Your task to perform on an android device: Do I have any events tomorrow? Image 0: 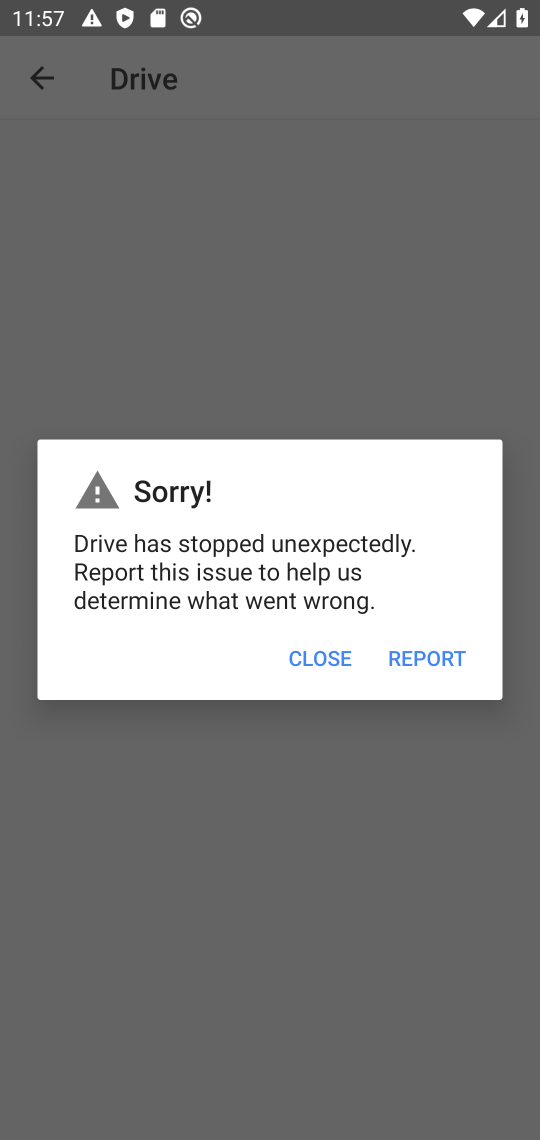
Step 0: press home button
Your task to perform on an android device: Do I have any events tomorrow? Image 1: 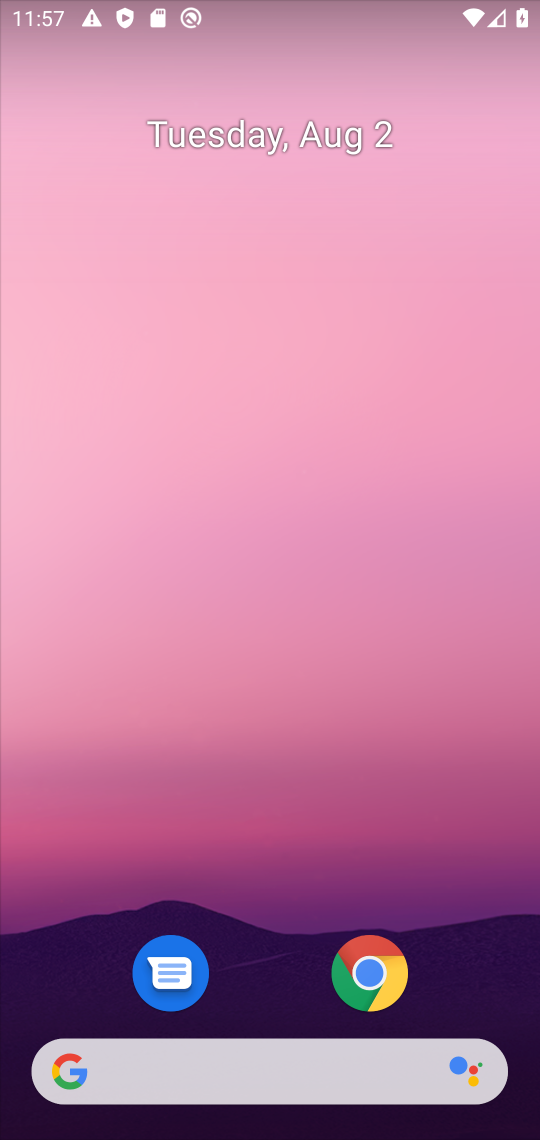
Step 1: drag from (255, 1050) to (175, 346)
Your task to perform on an android device: Do I have any events tomorrow? Image 2: 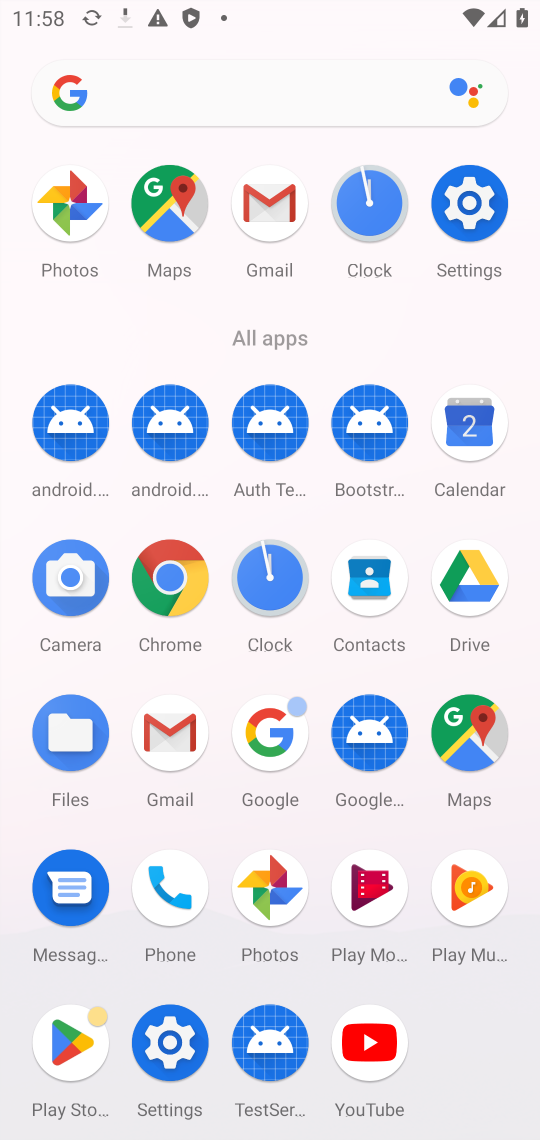
Step 2: click (452, 424)
Your task to perform on an android device: Do I have any events tomorrow? Image 3: 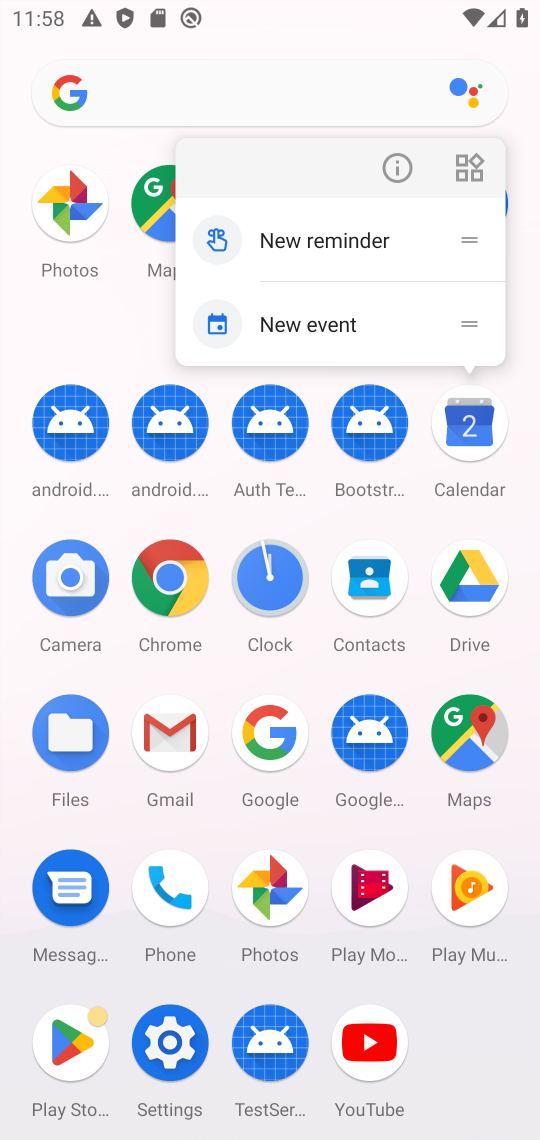
Step 3: click (465, 434)
Your task to perform on an android device: Do I have any events tomorrow? Image 4: 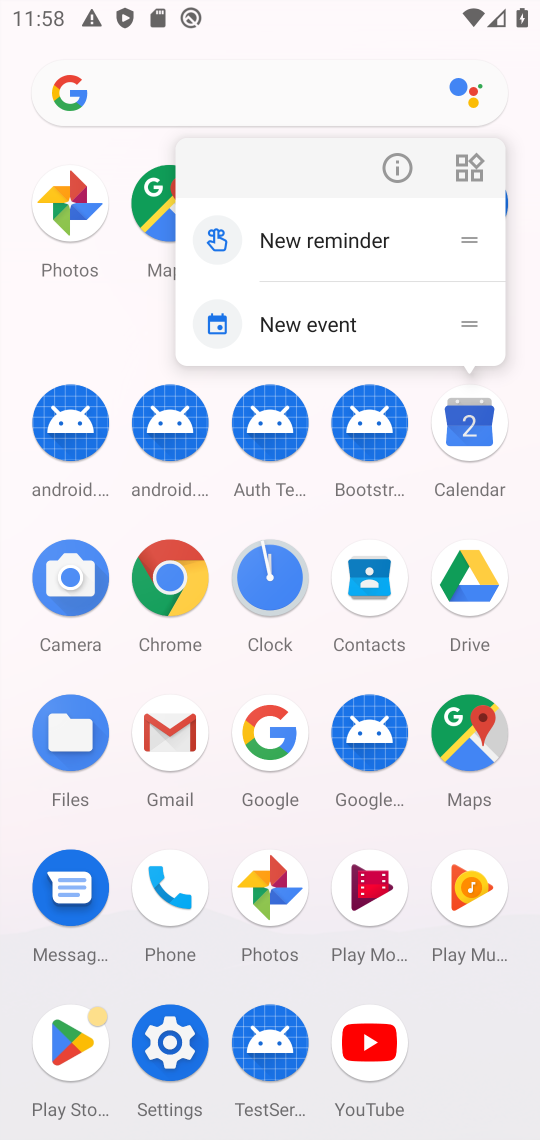
Step 4: click (465, 434)
Your task to perform on an android device: Do I have any events tomorrow? Image 5: 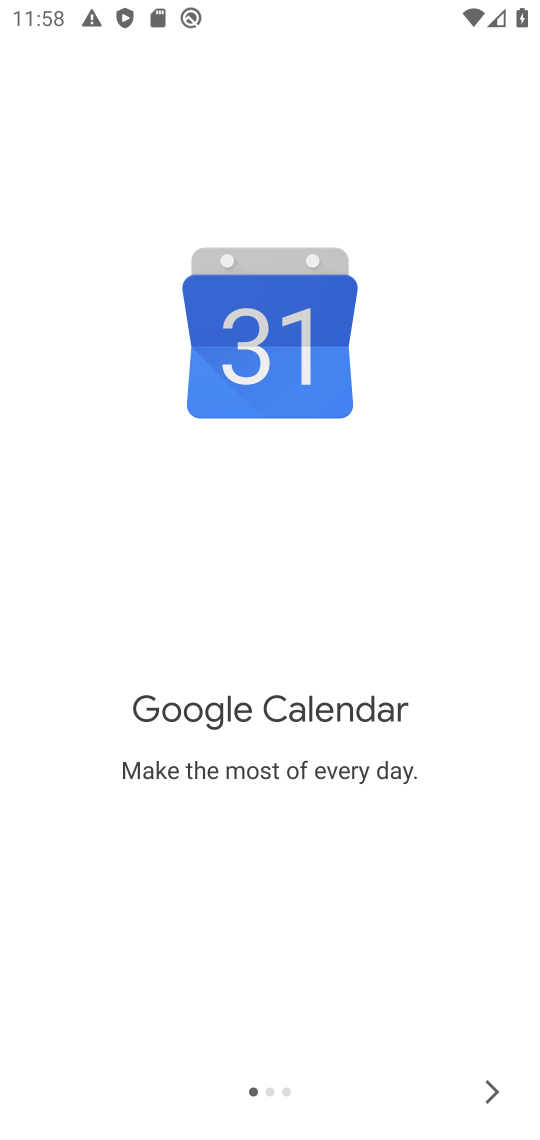
Step 5: click (501, 1093)
Your task to perform on an android device: Do I have any events tomorrow? Image 6: 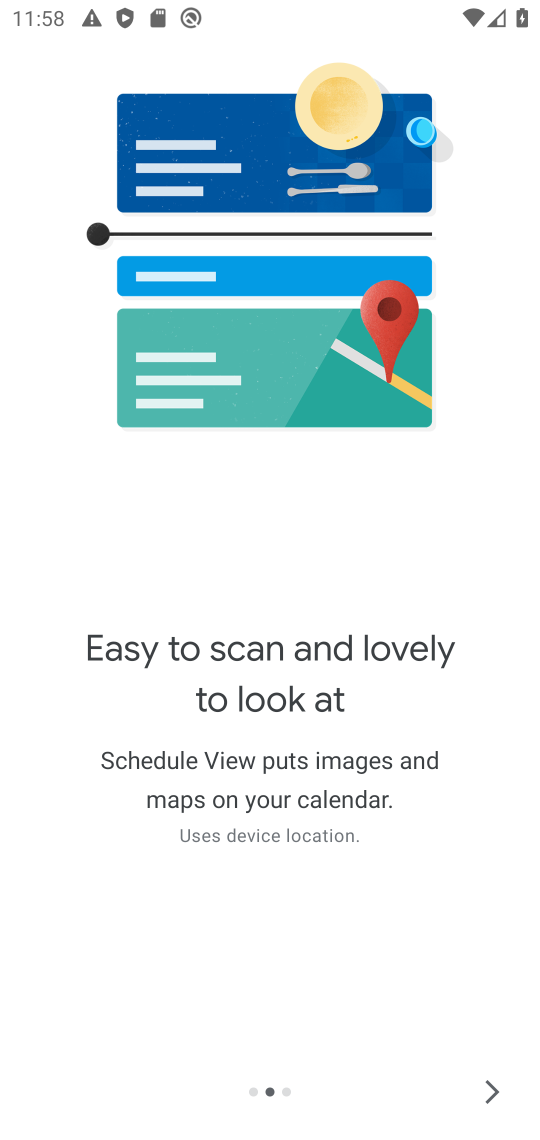
Step 6: click (485, 1087)
Your task to perform on an android device: Do I have any events tomorrow? Image 7: 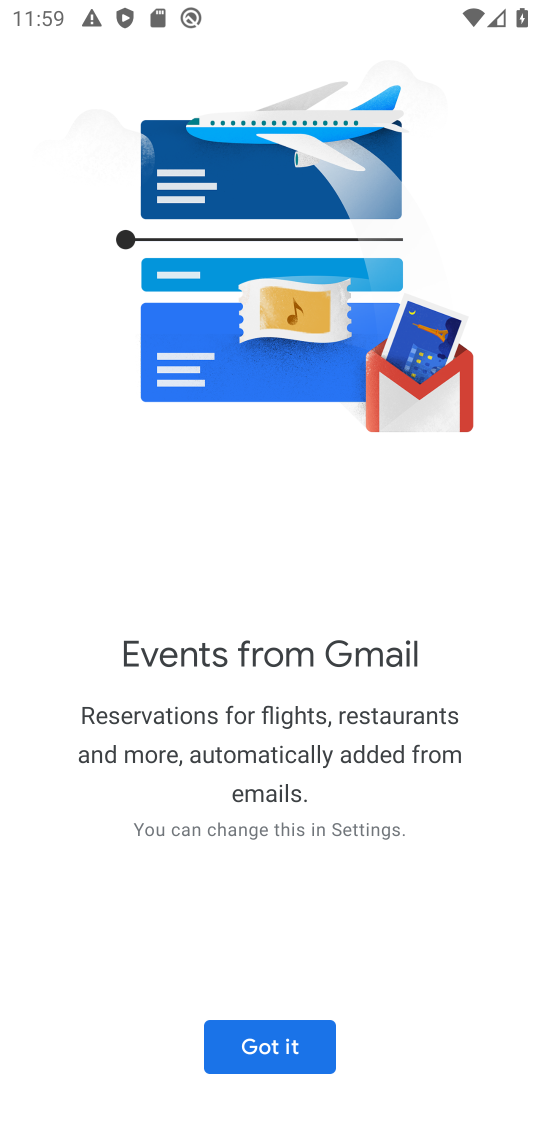
Step 7: click (294, 1067)
Your task to perform on an android device: Do I have any events tomorrow? Image 8: 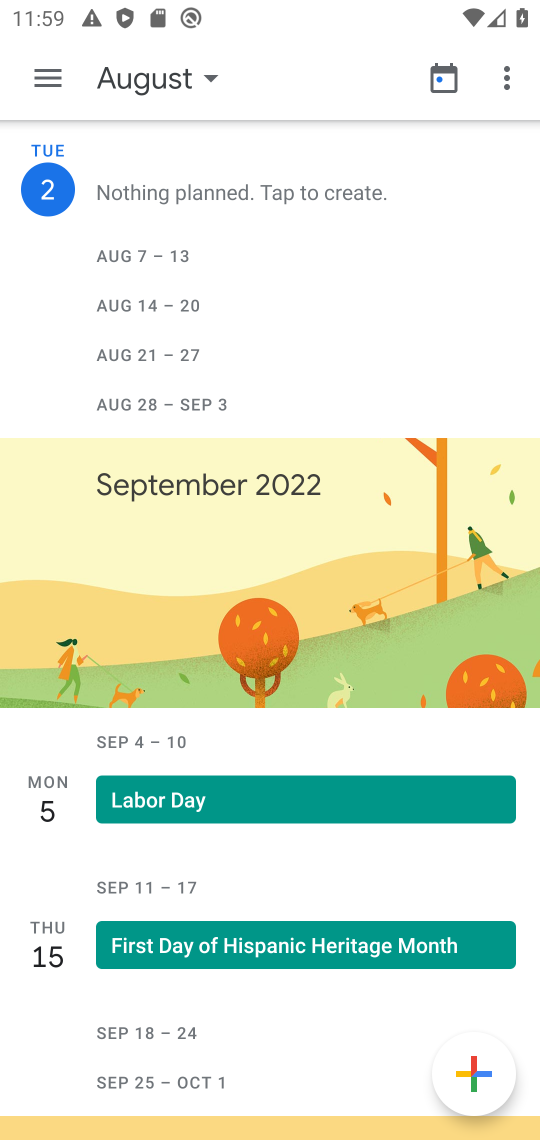
Step 8: click (52, 69)
Your task to perform on an android device: Do I have any events tomorrow? Image 9: 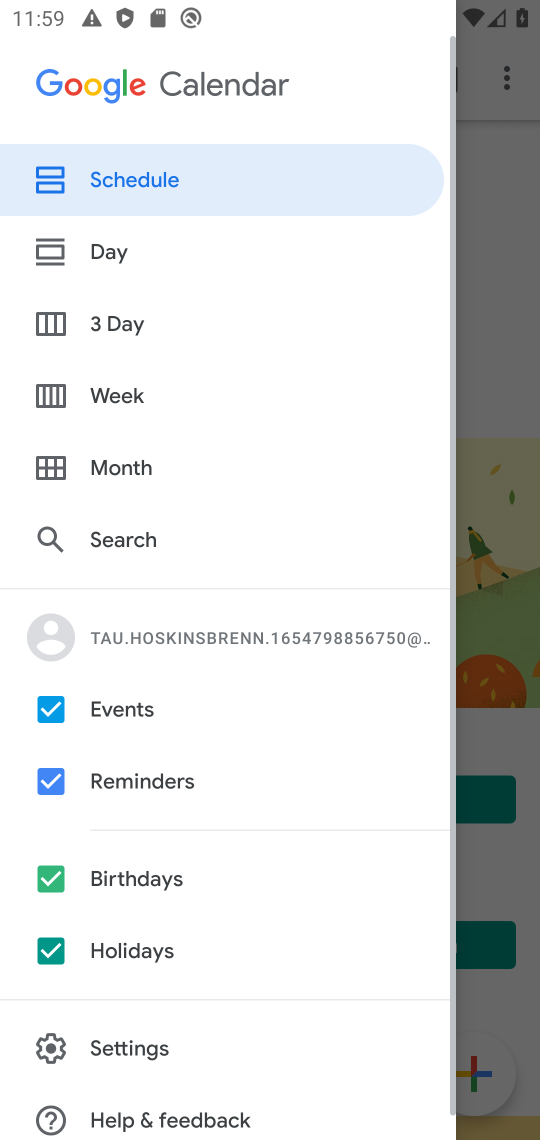
Step 9: click (126, 165)
Your task to perform on an android device: Do I have any events tomorrow? Image 10: 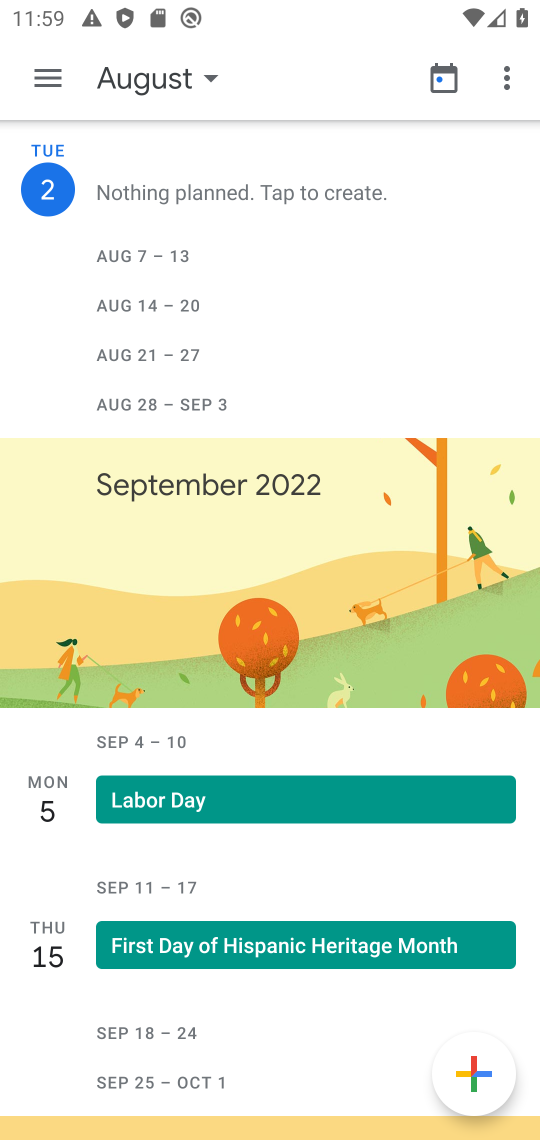
Step 10: task complete